Your task to perform on an android device: When is my next meeting? Image 0: 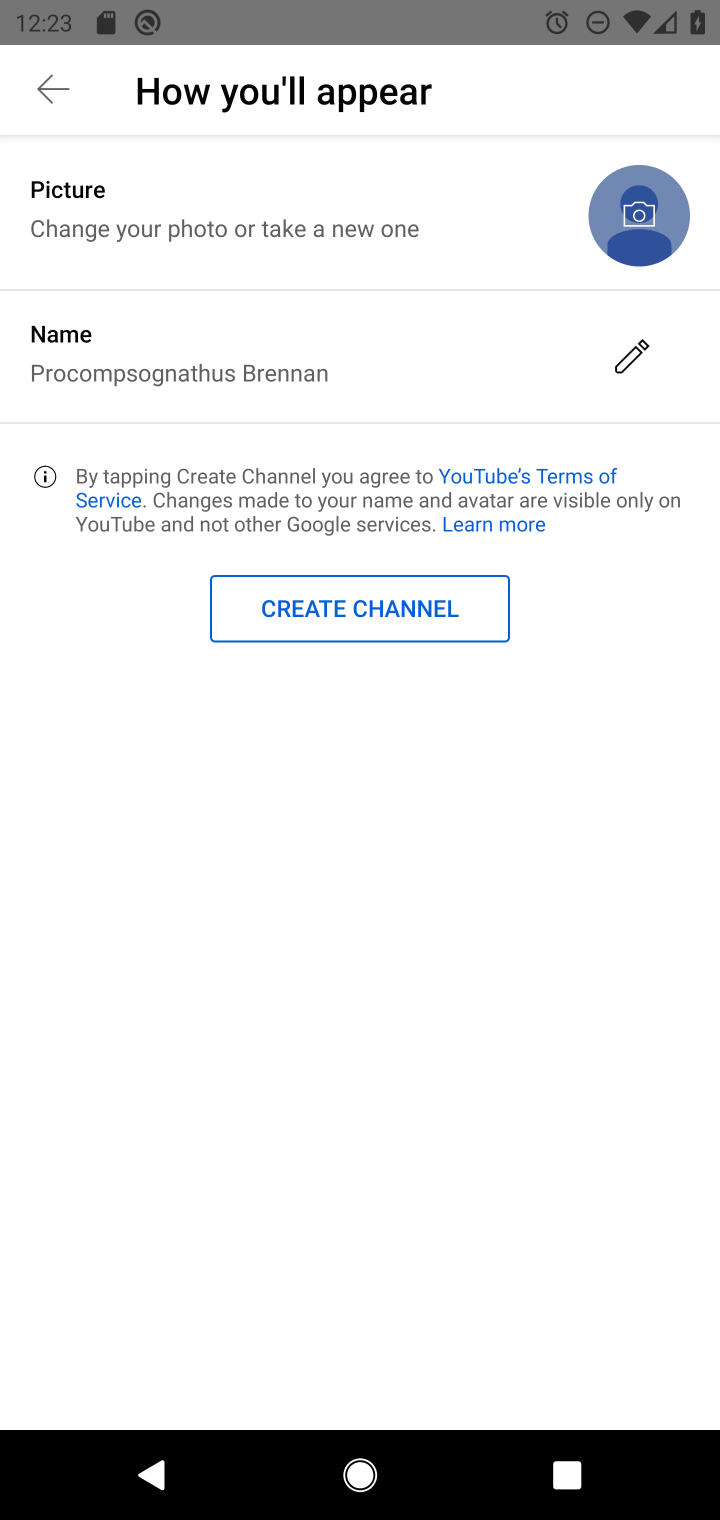
Step 0: press home button
Your task to perform on an android device: When is my next meeting? Image 1: 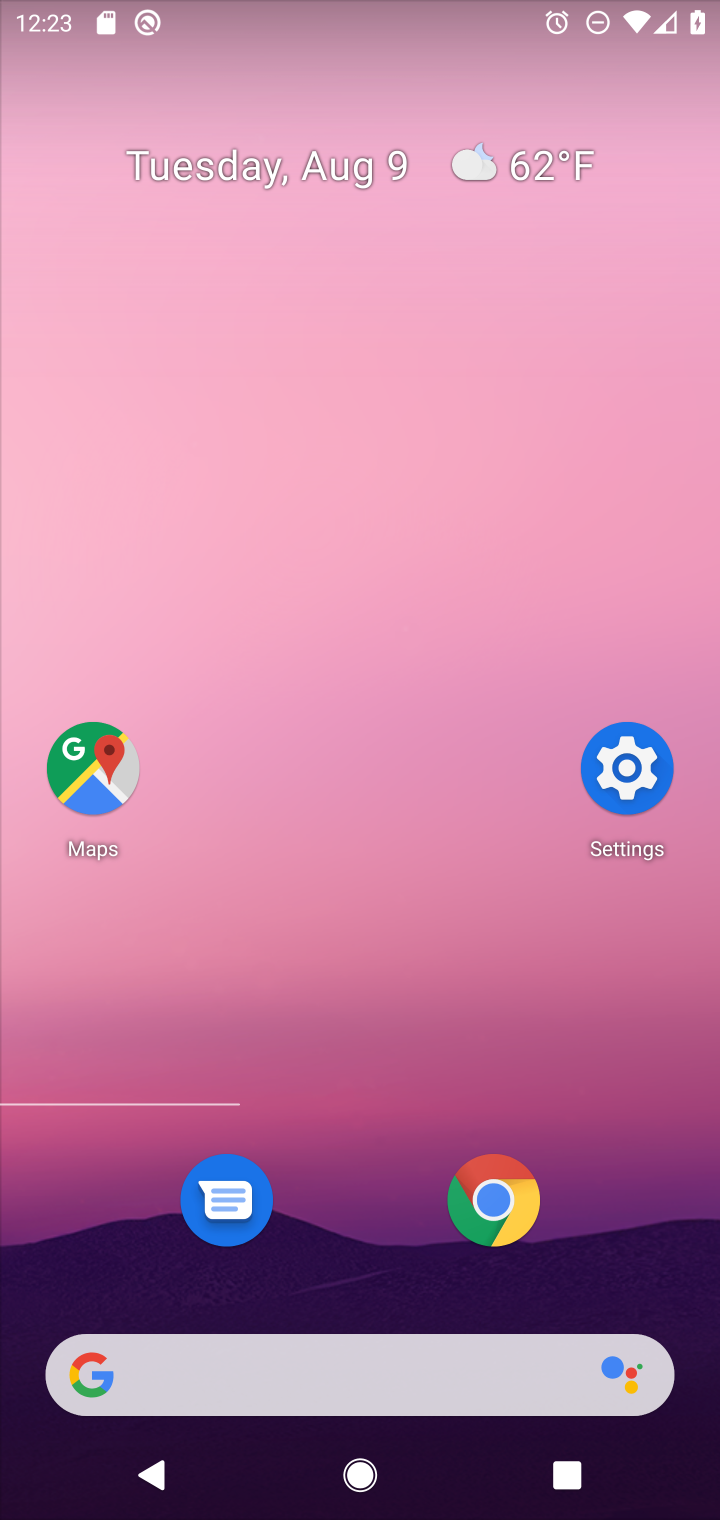
Step 1: press home button
Your task to perform on an android device: When is my next meeting? Image 2: 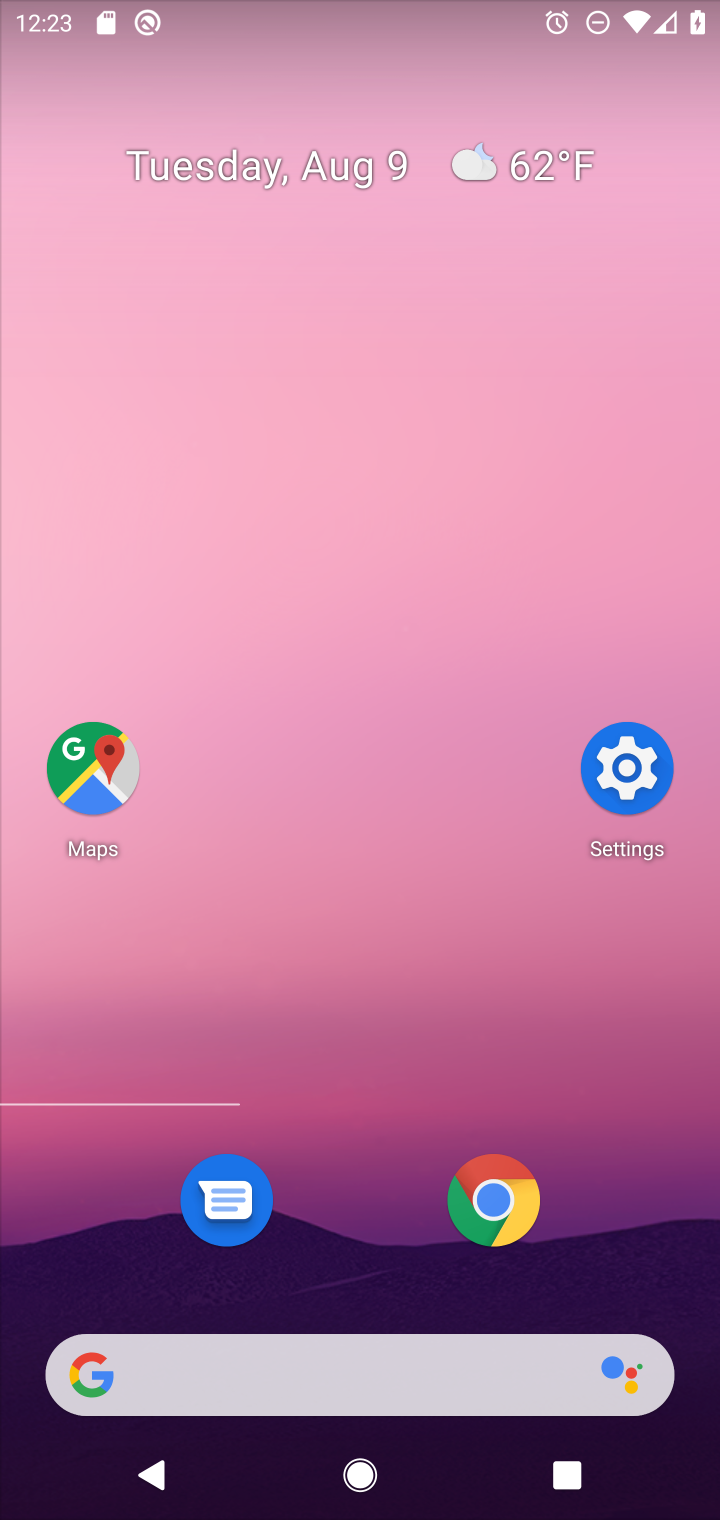
Step 2: click (240, 1375)
Your task to perform on an android device: When is my next meeting? Image 3: 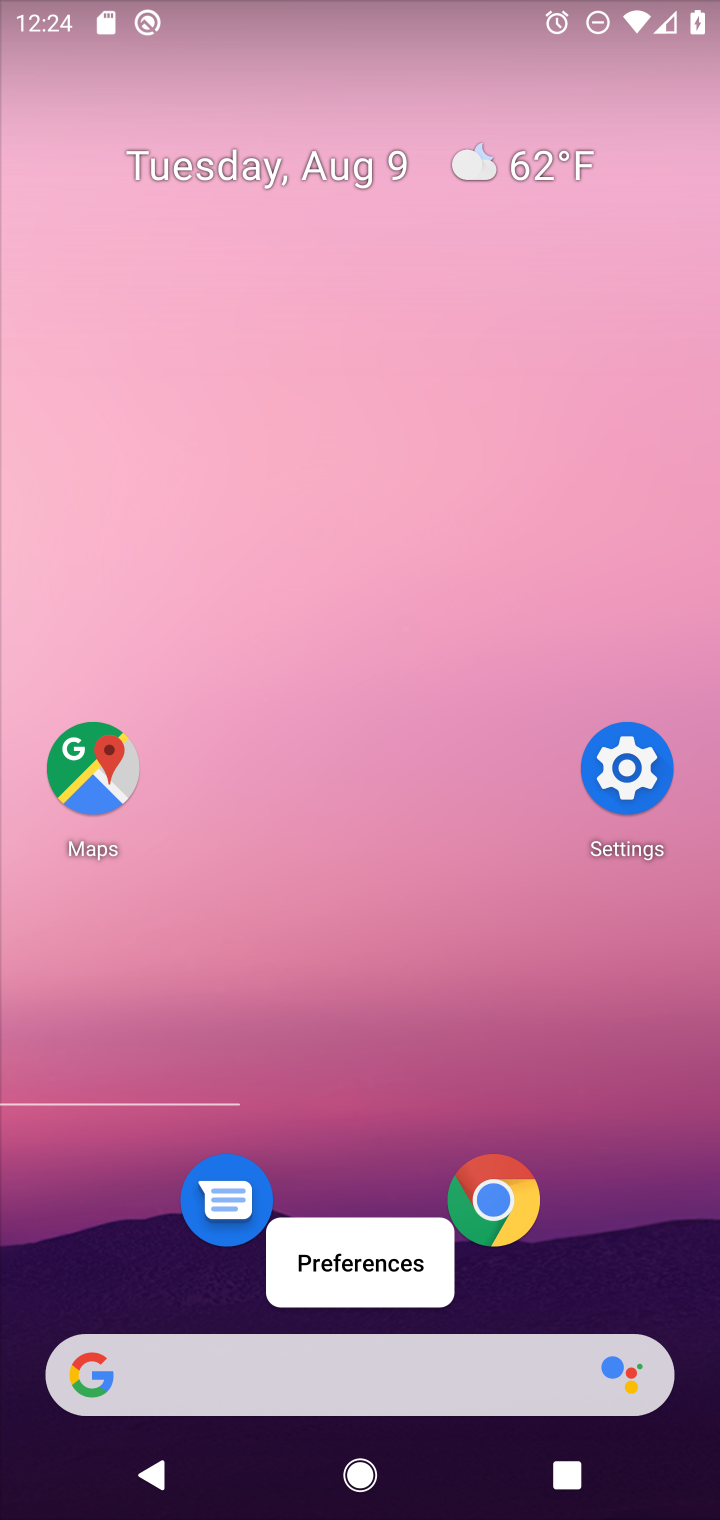
Step 3: drag from (275, 1380) to (587, 131)
Your task to perform on an android device: When is my next meeting? Image 4: 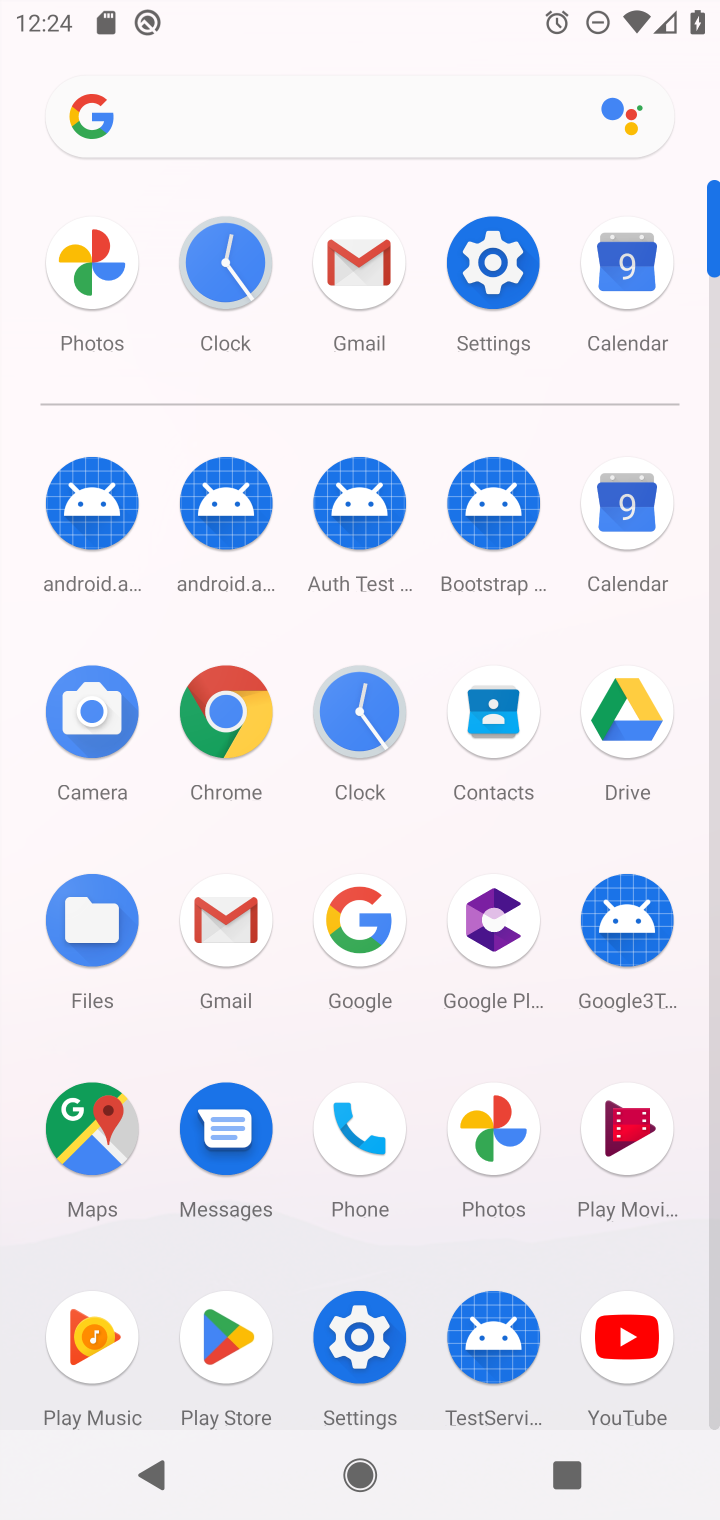
Step 4: click (627, 518)
Your task to perform on an android device: When is my next meeting? Image 5: 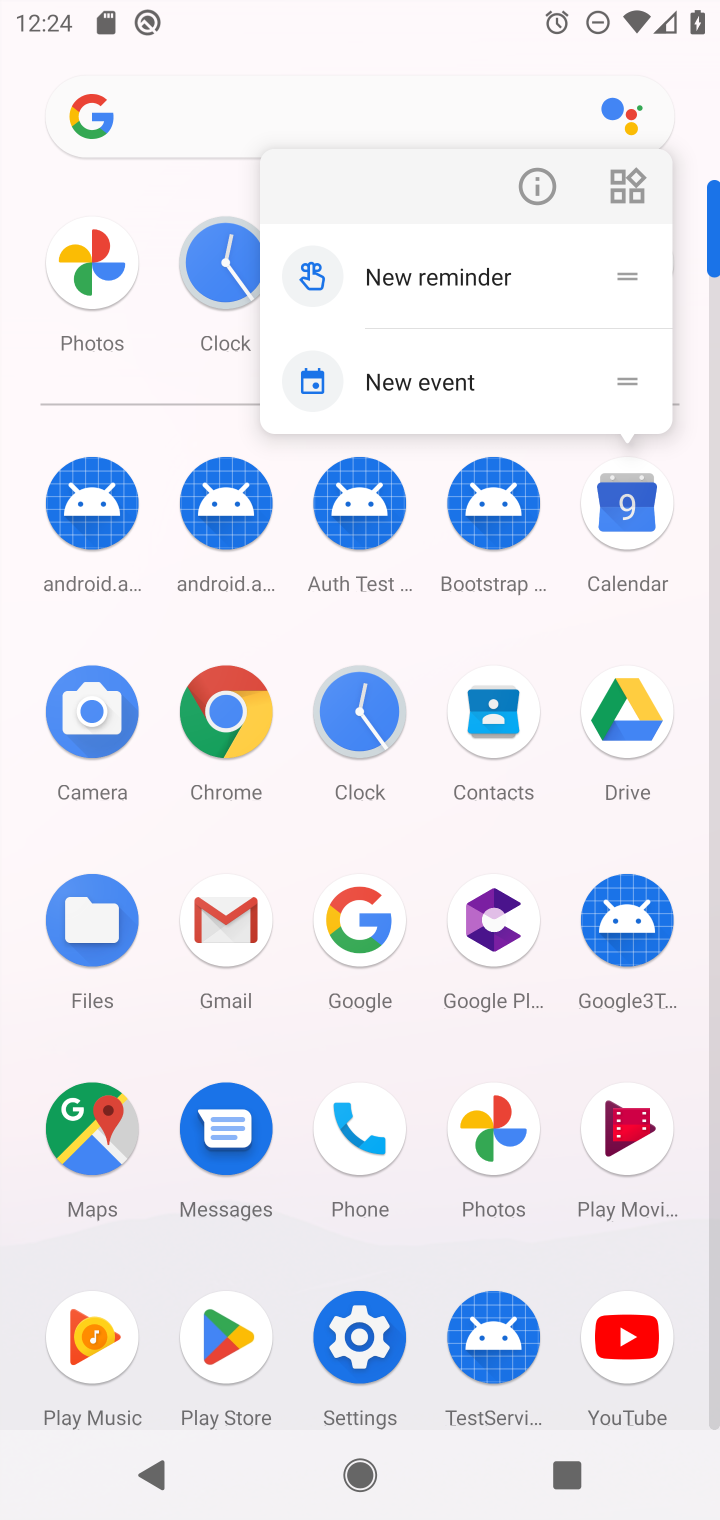
Step 5: click (623, 514)
Your task to perform on an android device: When is my next meeting? Image 6: 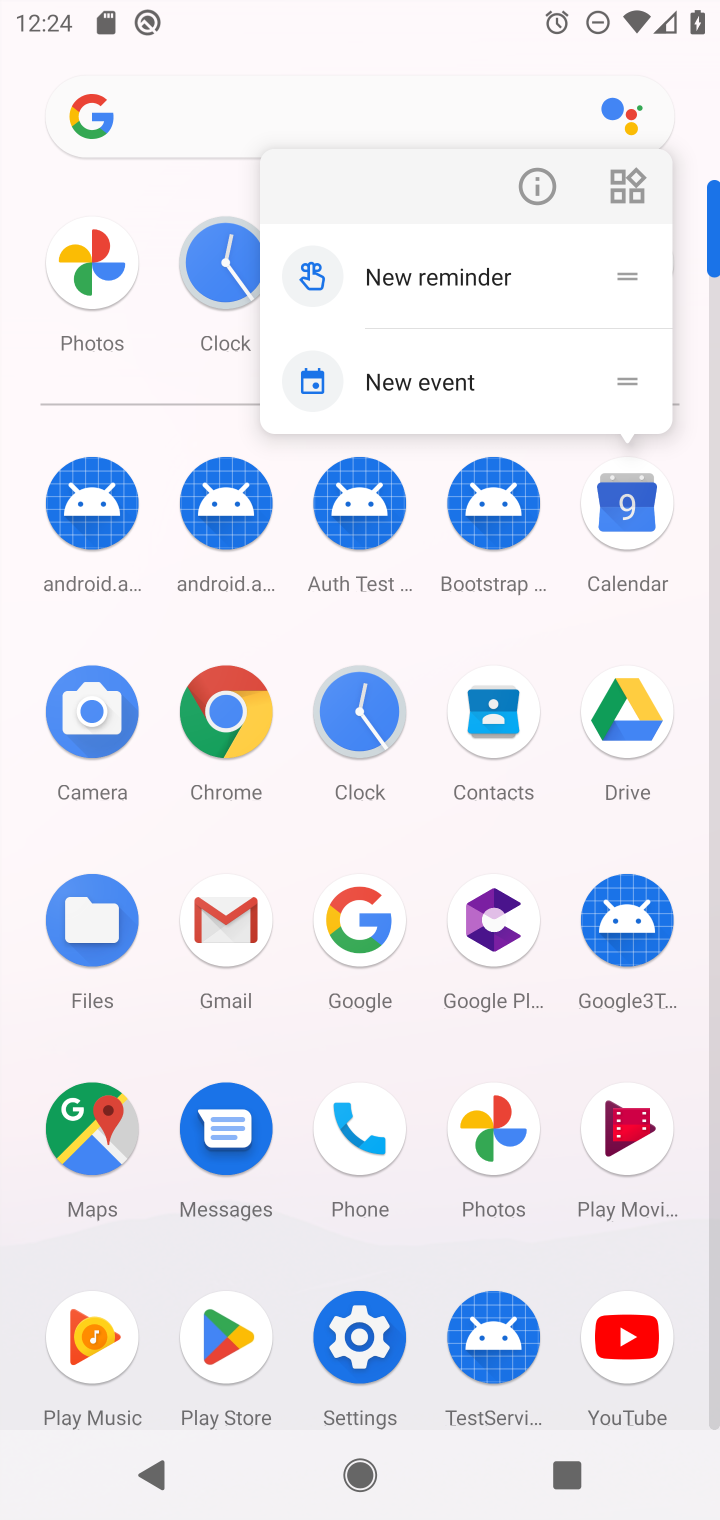
Step 6: click (623, 518)
Your task to perform on an android device: When is my next meeting? Image 7: 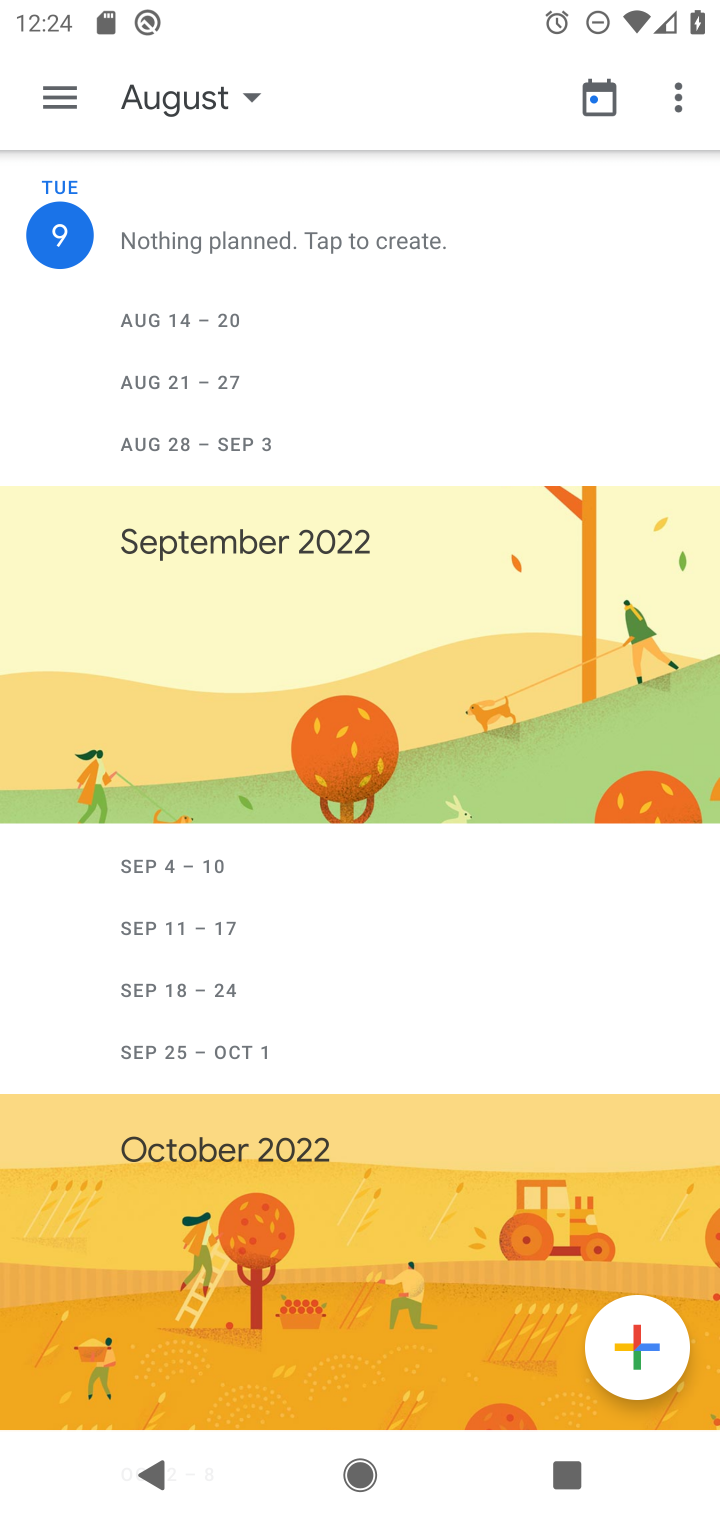
Step 7: task complete